Your task to perform on an android device: Open Google Chrome Image 0: 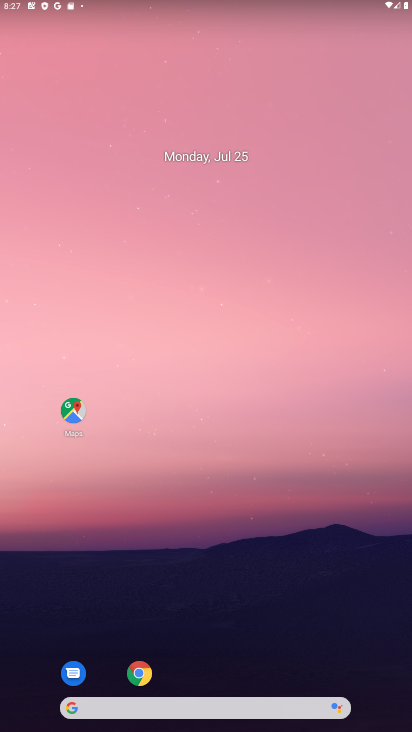
Step 0: click (143, 668)
Your task to perform on an android device: Open Google Chrome Image 1: 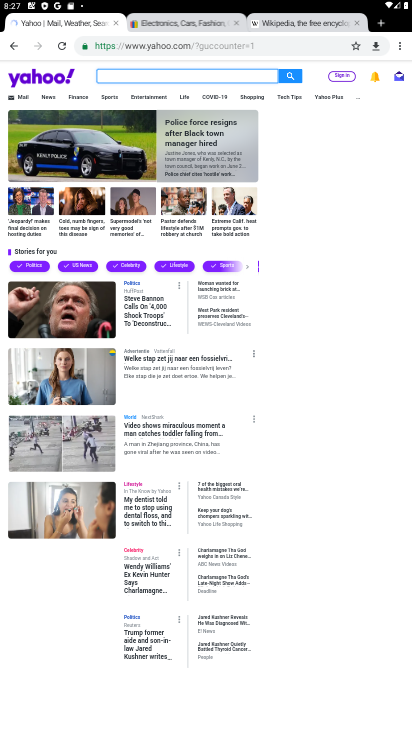
Step 1: task complete